Your task to perform on an android device: turn off picture-in-picture Image 0: 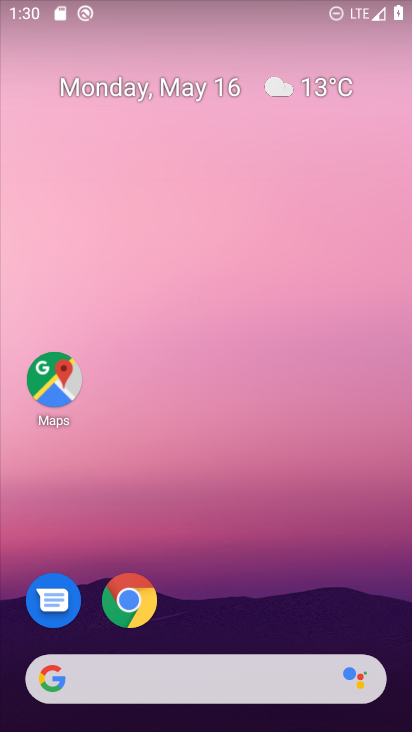
Step 0: click (50, 372)
Your task to perform on an android device: turn off picture-in-picture Image 1: 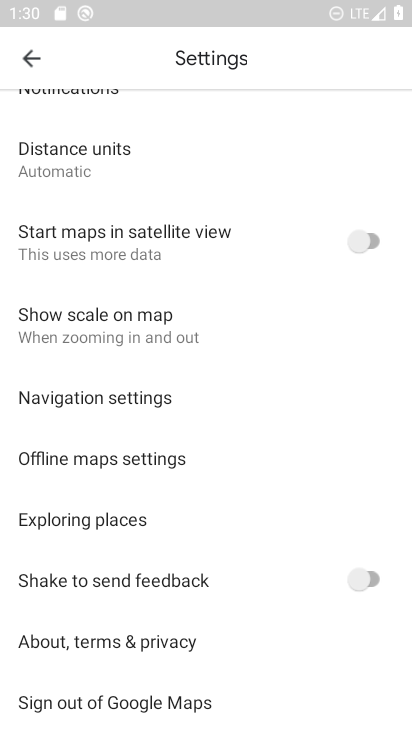
Step 1: press home button
Your task to perform on an android device: turn off picture-in-picture Image 2: 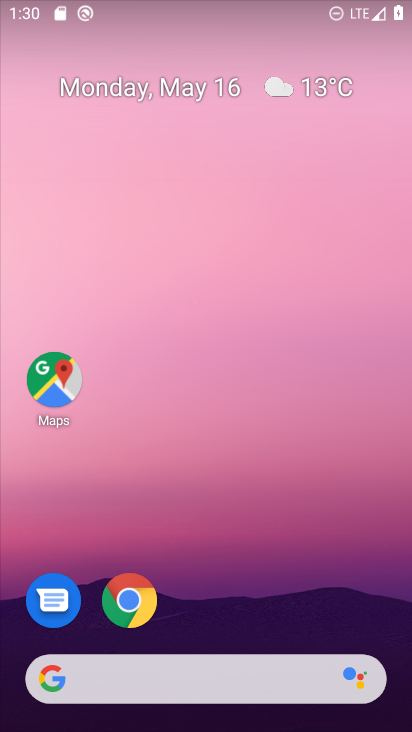
Step 2: click (136, 595)
Your task to perform on an android device: turn off picture-in-picture Image 3: 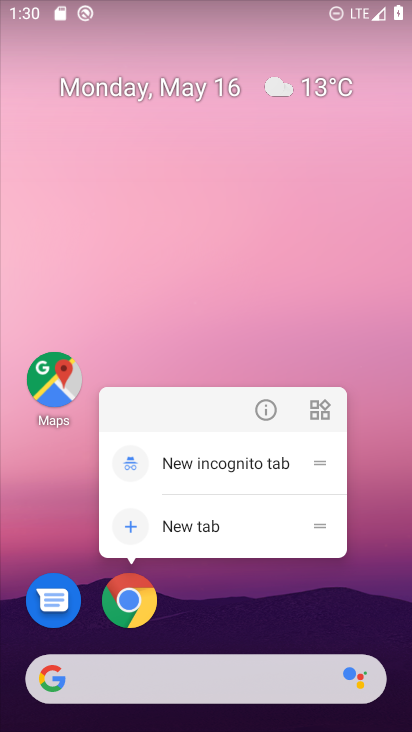
Step 3: click (267, 404)
Your task to perform on an android device: turn off picture-in-picture Image 4: 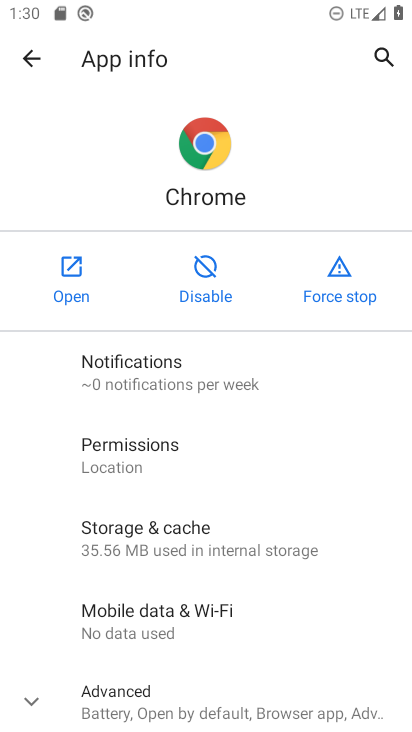
Step 4: click (37, 700)
Your task to perform on an android device: turn off picture-in-picture Image 5: 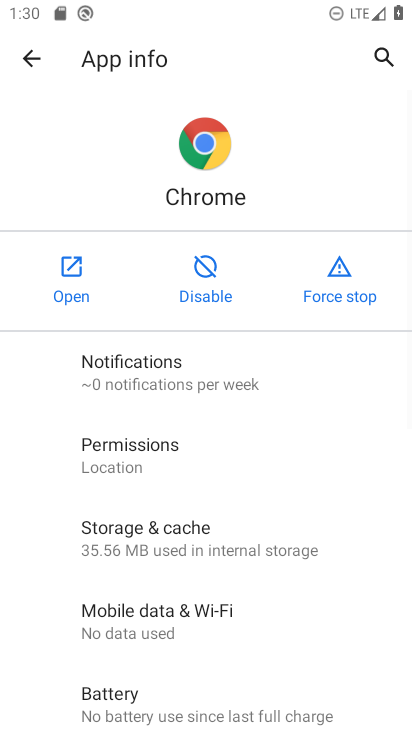
Step 5: drag from (243, 672) to (265, 118)
Your task to perform on an android device: turn off picture-in-picture Image 6: 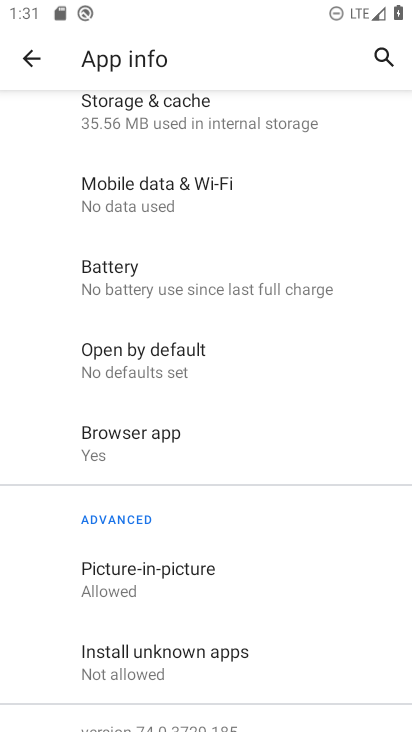
Step 6: click (158, 579)
Your task to perform on an android device: turn off picture-in-picture Image 7: 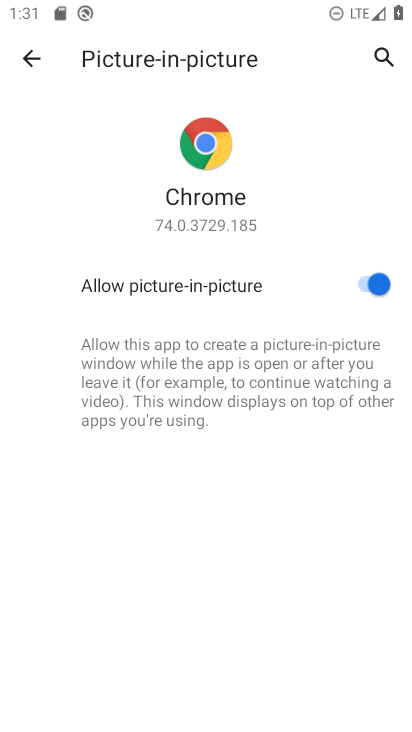
Step 7: click (369, 279)
Your task to perform on an android device: turn off picture-in-picture Image 8: 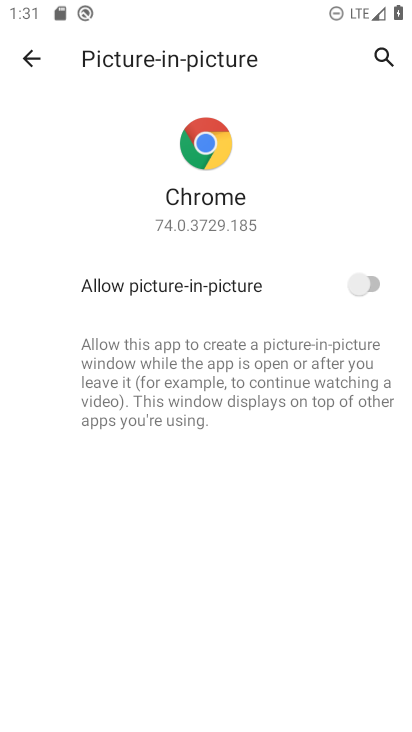
Step 8: task complete